Your task to perform on an android device: Go to sound settings Image 0: 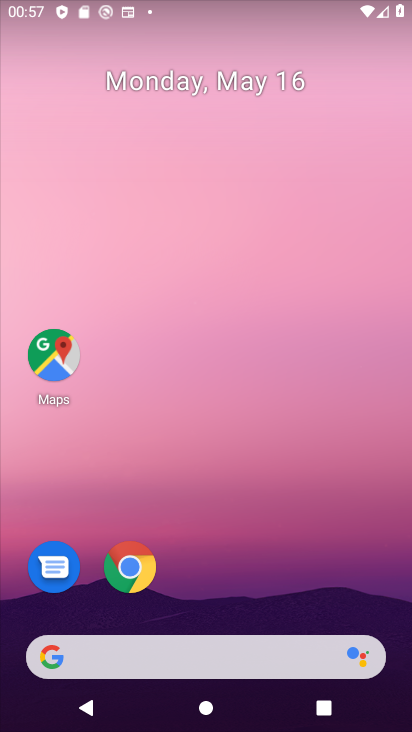
Step 0: drag from (228, 614) to (169, 129)
Your task to perform on an android device: Go to sound settings Image 1: 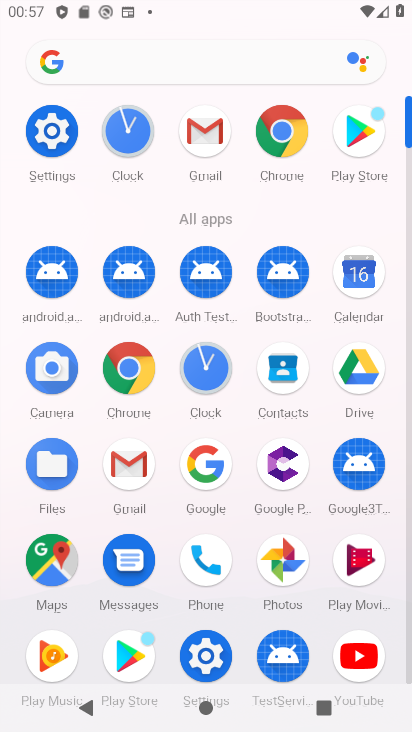
Step 1: click (47, 137)
Your task to perform on an android device: Go to sound settings Image 2: 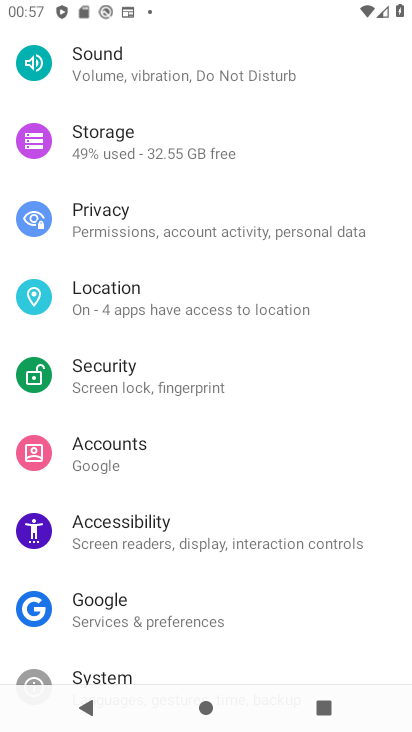
Step 2: click (189, 75)
Your task to perform on an android device: Go to sound settings Image 3: 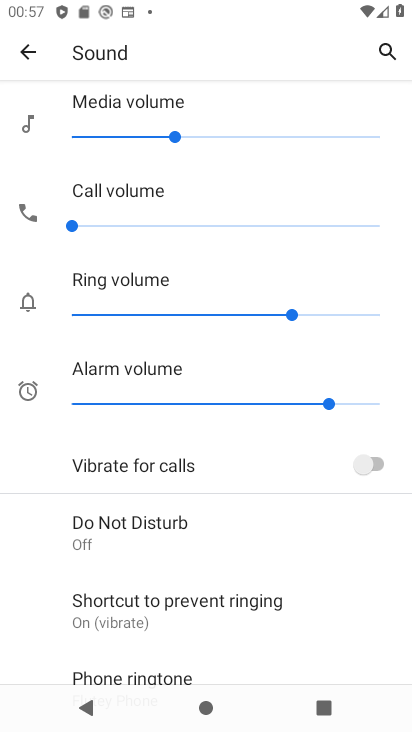
Step 3: task complete